Your task to perform on an android device: toggle notification dots Image 0: 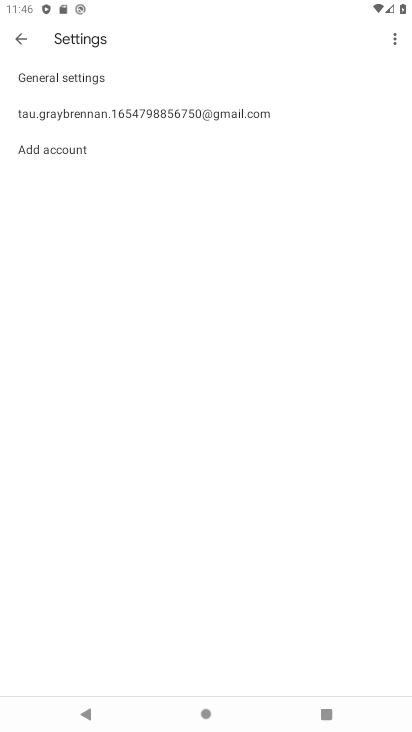
Step 0: press home button
Your task to perform on an android device: toggle notification dots Image 1: 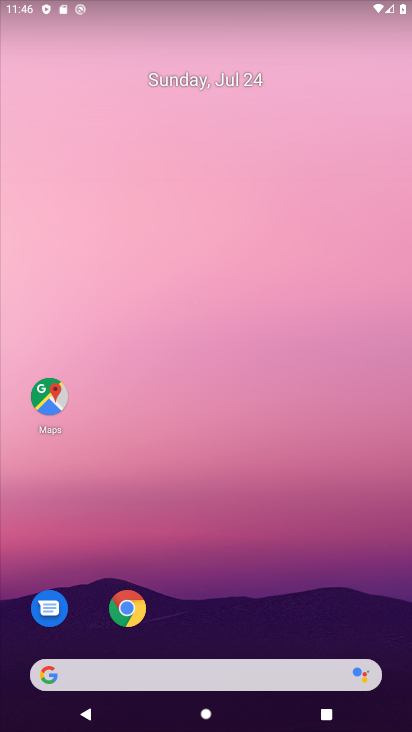
Step 1: drag from (22, 492) to (197, 106)
Your task to perform on an android device: toggle notification dots Image 2: 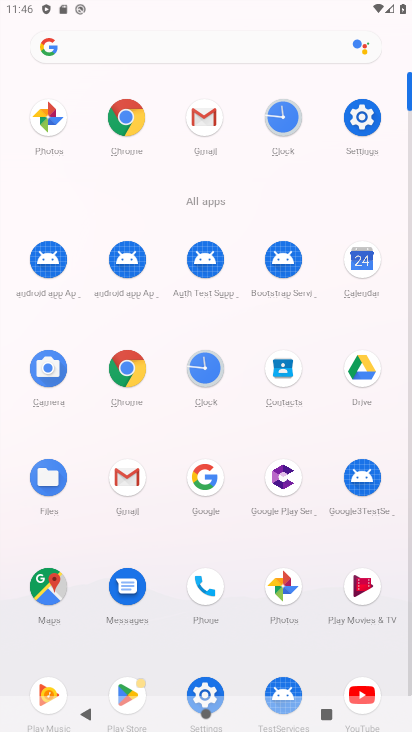
Step 2: click (365, 129)
Your task to perform on an android device: toggle notification dots Image 3: 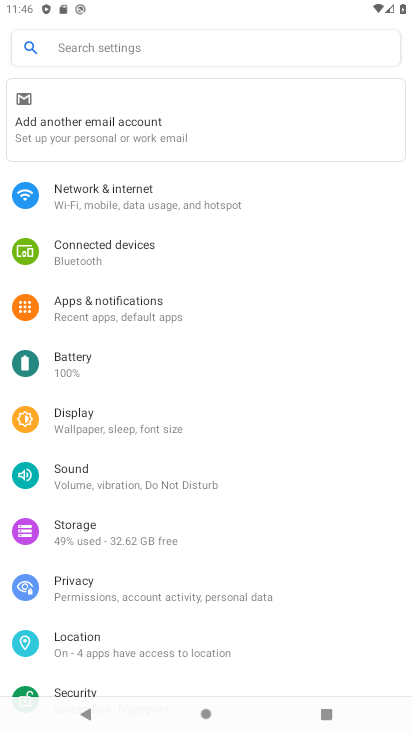
Step 3: click (104, 312)
Your task to perform on an android device: toggle notification dots Image 4: 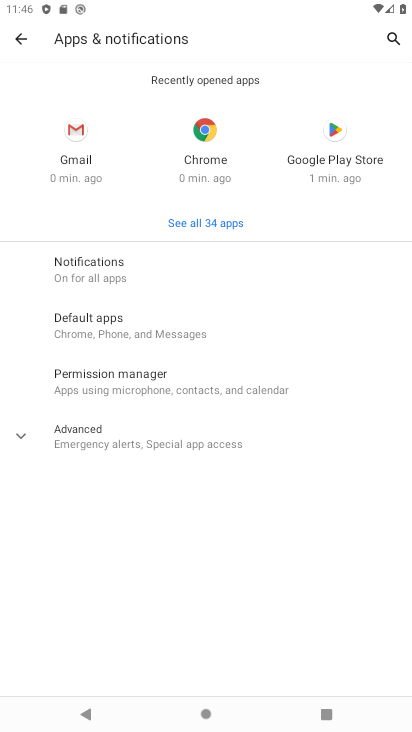
Step 4: click (95, 277)
Your task to perform on an android device: toggle notification dots Image 5: 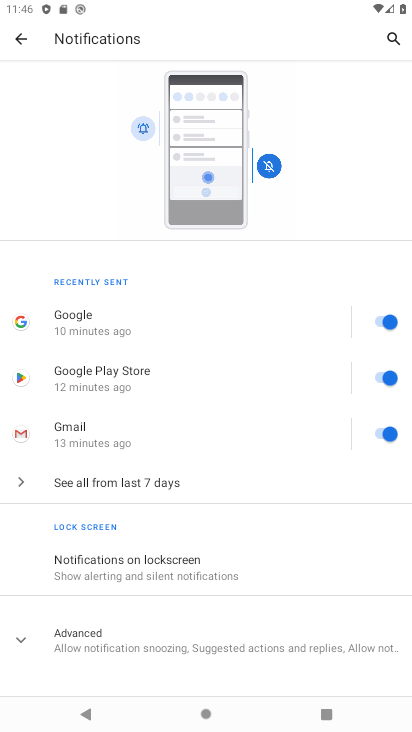
Step 5: click (114, 642)
Your task to perform on an android device: toggle notification dots Image 6: 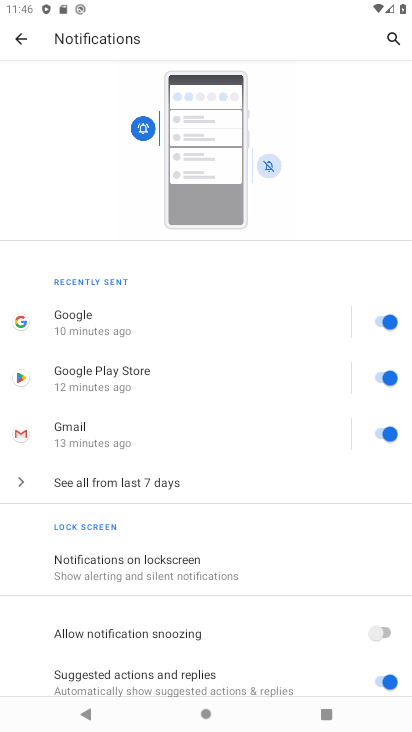
Step 6: drag from (20, 583) to (128, 238)
Your task to perform on an android device: toggle notification dots Image 7: 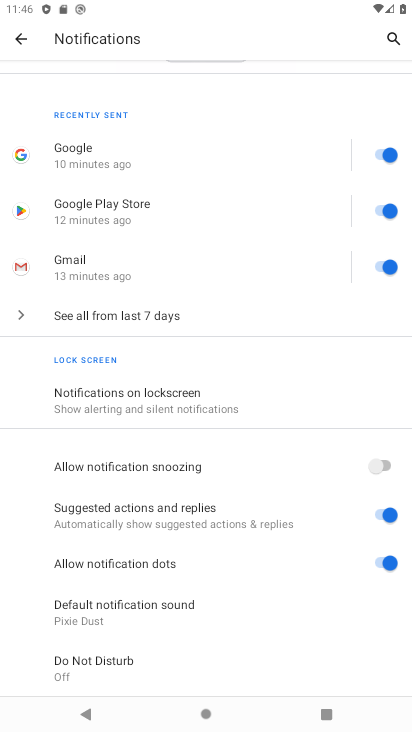
Step 7: click (392, 568)
Your task to perform on an android device: toggle notification dots Image 8: 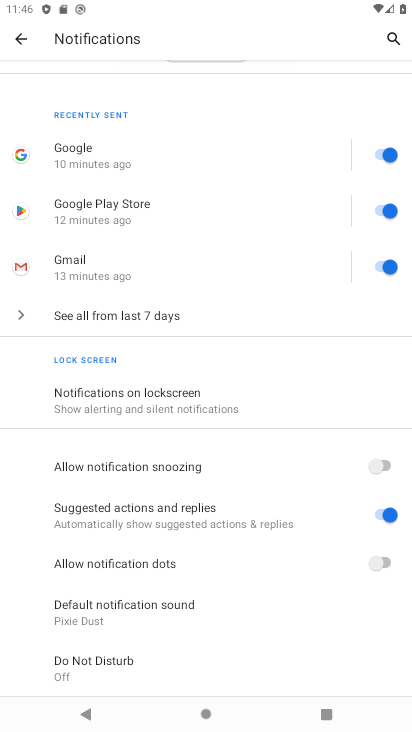
Step 8: task complete